Your task to perform on an android device: What's on my calendar today? Image 0: 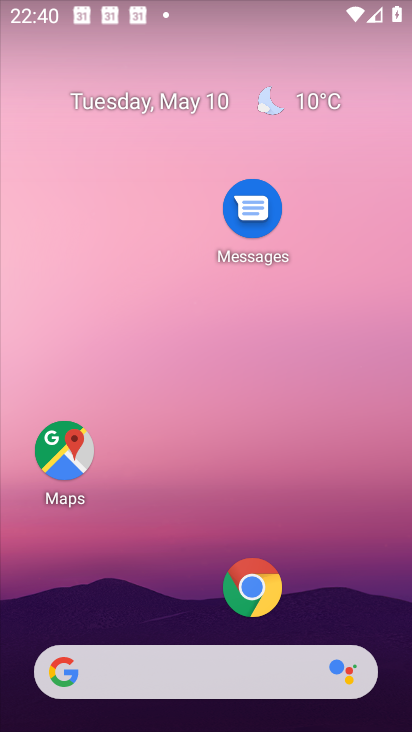
Step 0: drag from (149, 544) to (210, 286)
Your task to perform on an android device: What's on my calendar today? Image 1: 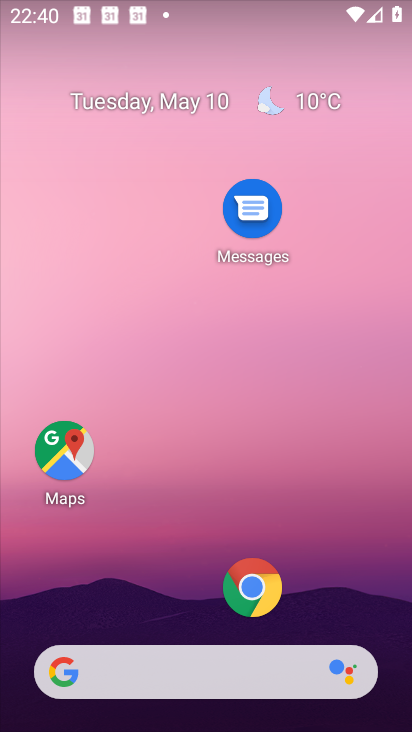
Step 1: drag from (174, 618) to (202, 211)
Your task to perform on an android device: What's on my calendar today? Image 2: 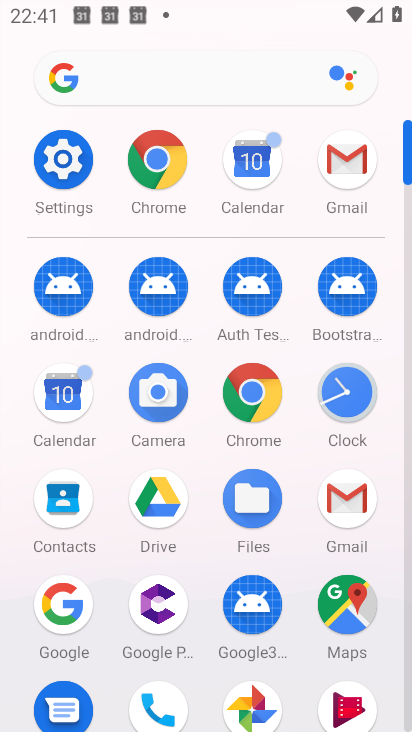
Step 2: click (55, 401)
Your task to perform on an android device: What's on my calendar today? Image 3: 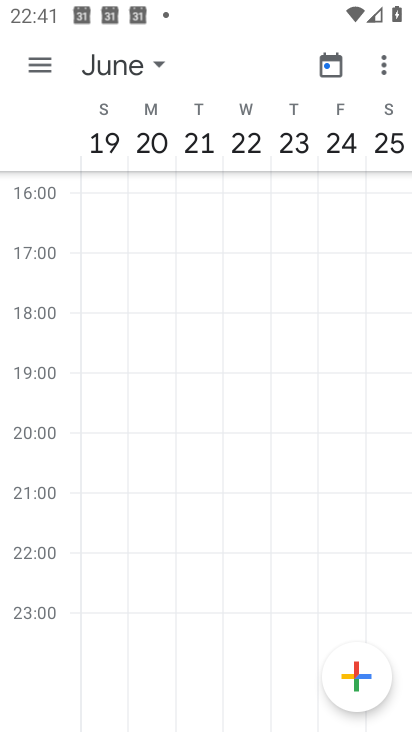
Step 3: click (37, 60)
Your task to perform on an android device: What's on my calendar today? Image 4: 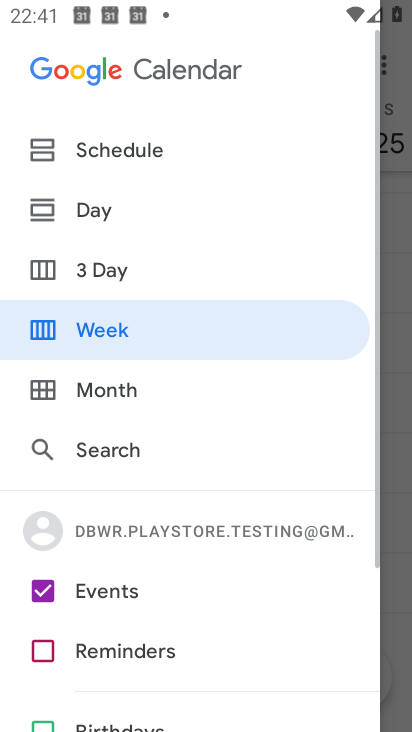
Step 4: click (96, 214)
Your task to perform on an android device: What's on my calendar today? Image 5: 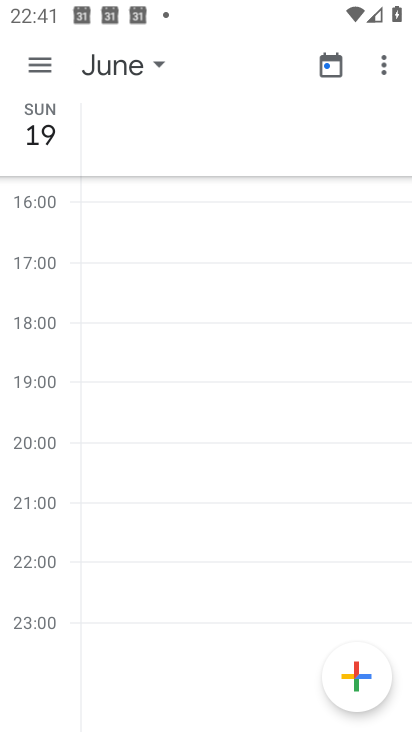
Step 5: click (121, 63)
Your task to perform on an android device: What's on my calendar today? Image 6: 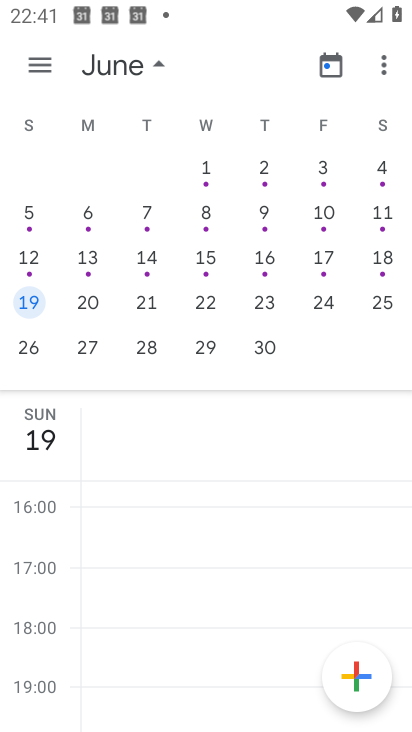
Step 6: drag from (116, 253) to (395, 373)
Your task to perform on an android device: What's on my calendar today? Image 7: 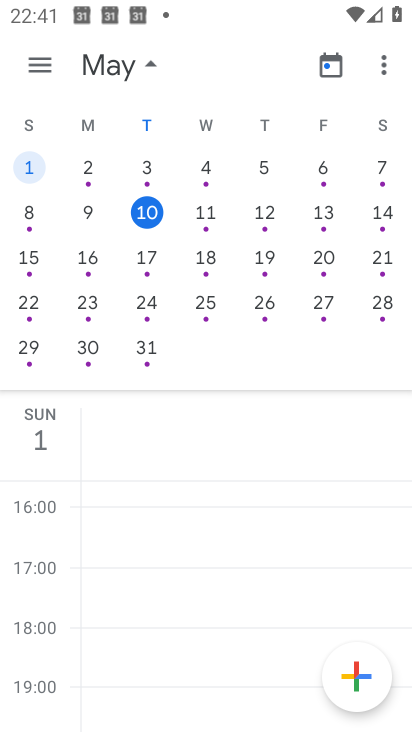
Step 7: click (149, 217)
Your task to perform on an android device: What's on my calendar today? Image 8: 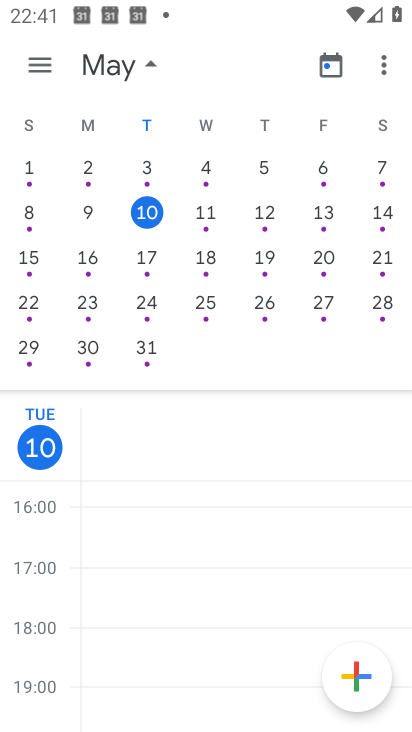
Step 8: click (201, 205)
Your task to perform on an android device: What's on my calendar today? Image 9: 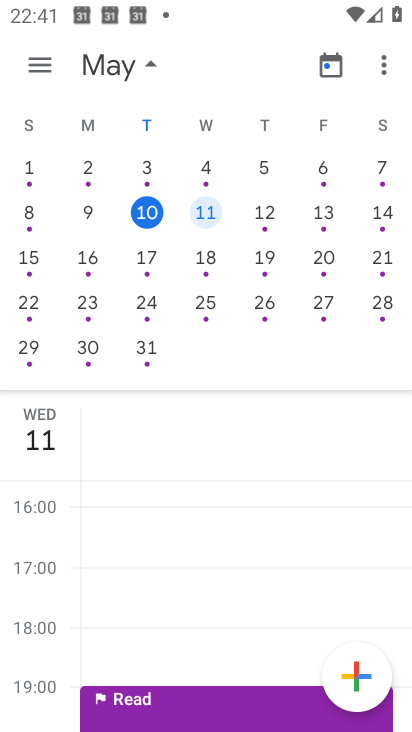
Step 9: click (208, 216)
Your task to perform on an android device: What's on my calendar today? Image 10: 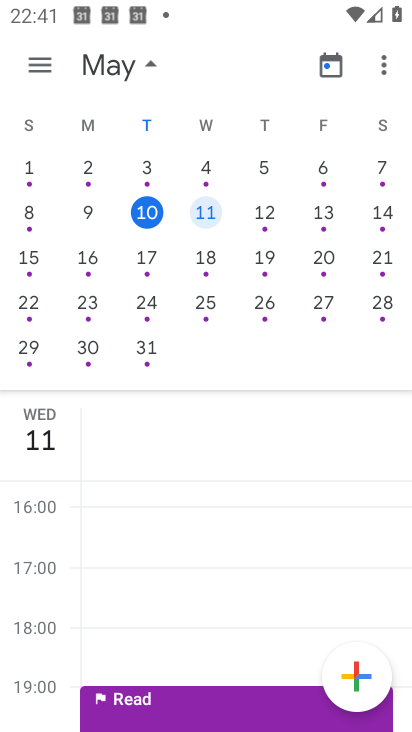
Step 10: click (41, 56)
Your task to perform on an android device: What's on my calendar today? Image 11: 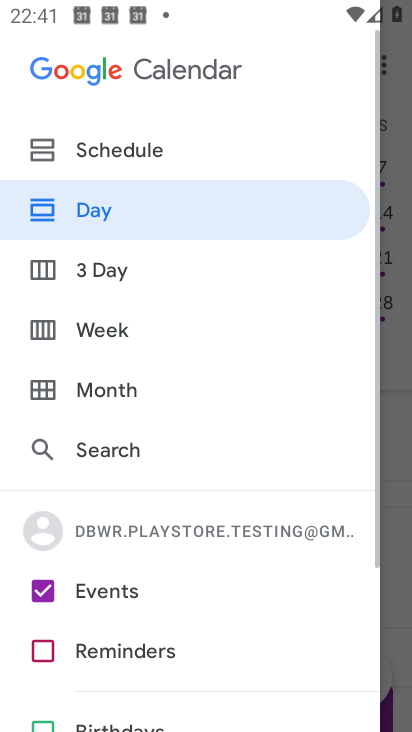
Step 11: click (98, 214)
Your task to perform on an android device: What's on my calendar today? Image 12: 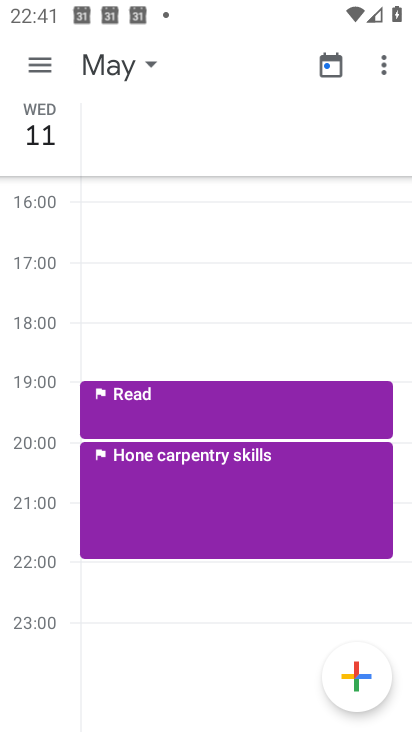
Step 12: task complete